Your task to perform on an android device: Do I have any events tomorrow? Image 0: 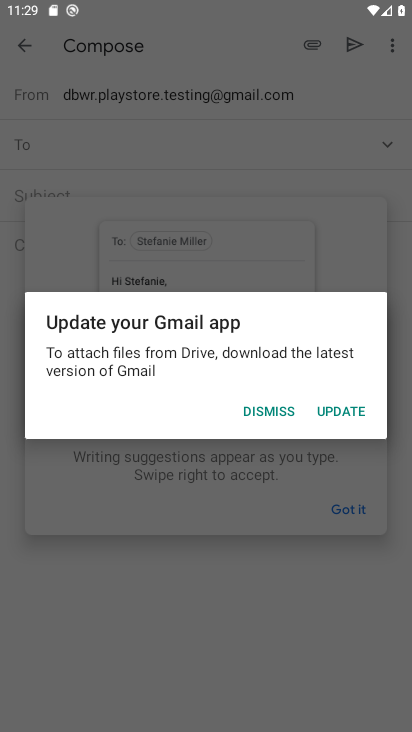
Step 0: press home button
Your task to perform on an android device: Do I have any events tomorrow? Image 1: 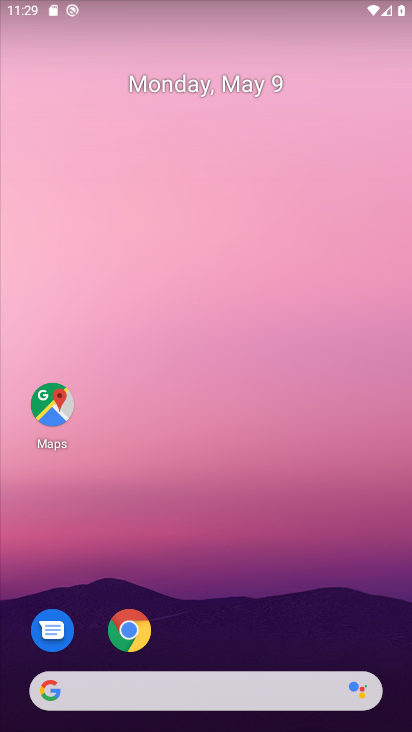
Step 1: drag from (253, 601) to (87, 137)
Your task to perform on an android device: Do I have any events tomorrow? Image 2: 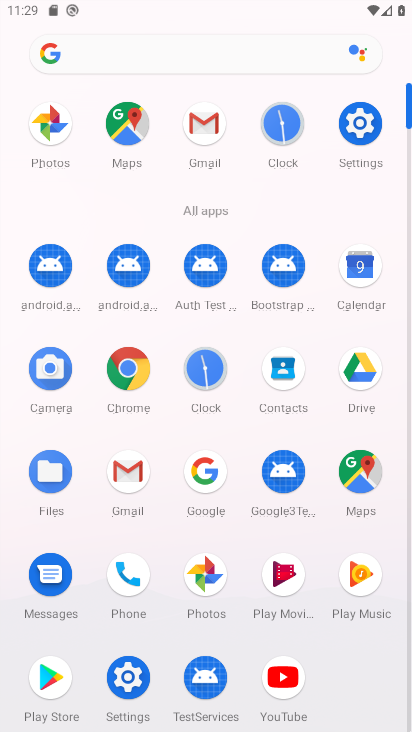
Step 2: click (358, 267)
Your task to perform on an android device: Do I have any events tomorrow? Image 3: 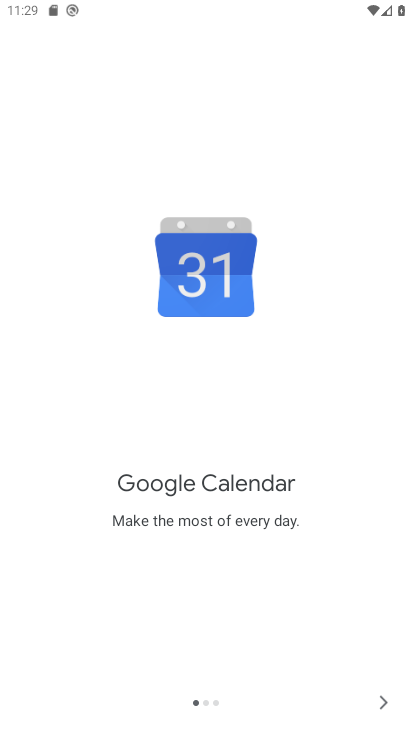
Step 3: click (386, 700)
Your task to perform on an android device: Do I have any events tomorrow? Image 4: 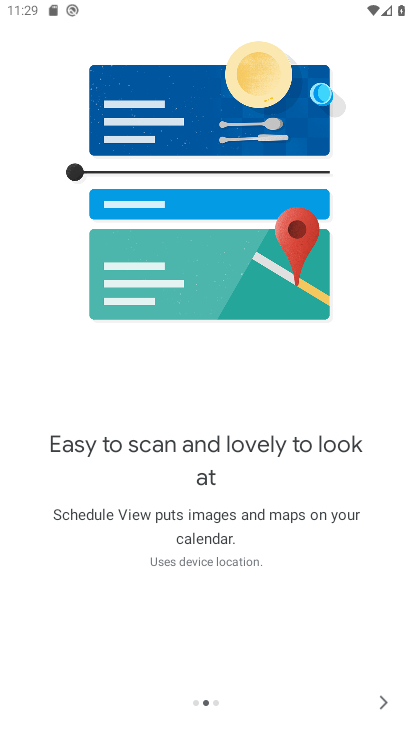
Step 4: click (385, 700)
Your task to perform on an android device: Do I have any events tomorrow? Image 5: 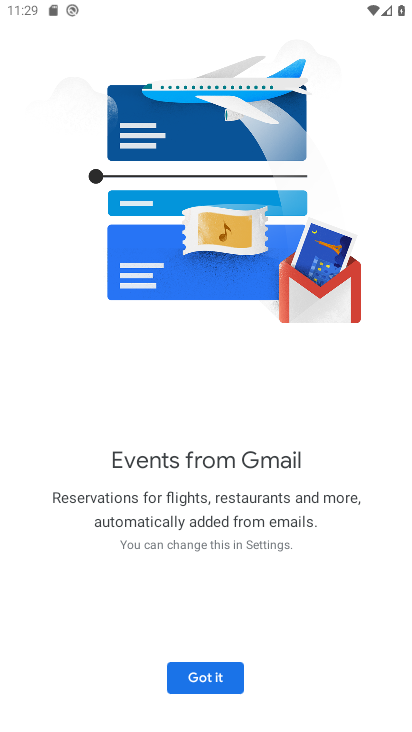
Step 5: click (230, 686)
Your task to perform on an android device: Do I have any events tomorrow? Image 6: 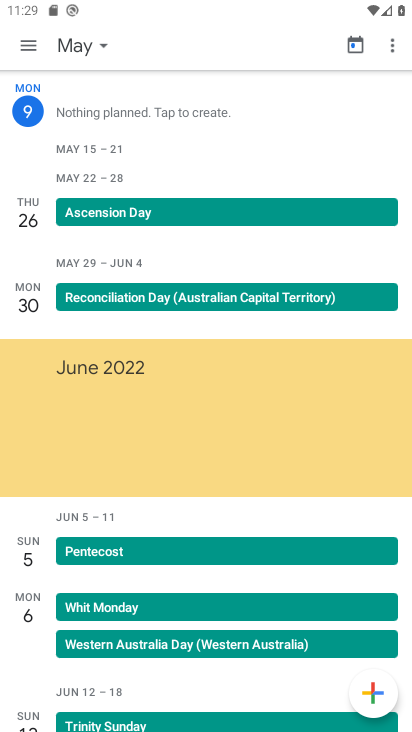
Step 6: click (28, 43)
Your task to perform on an android device: Do I have any events tomorrow? Image 7: 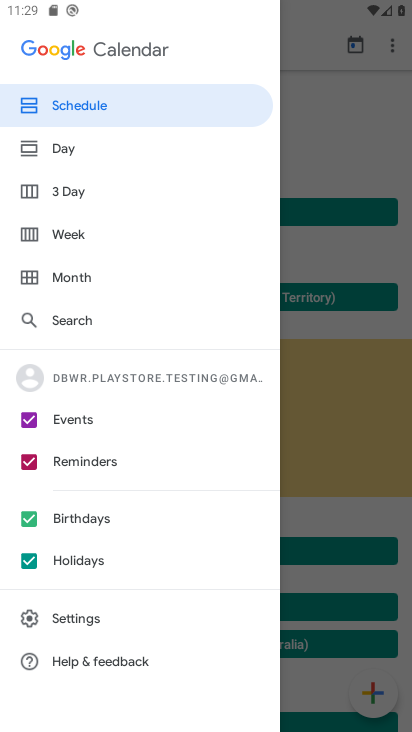
Step 7: click (28, 43)
Your task to perform on an android device: Do I have any events tomorrow? Image 8: 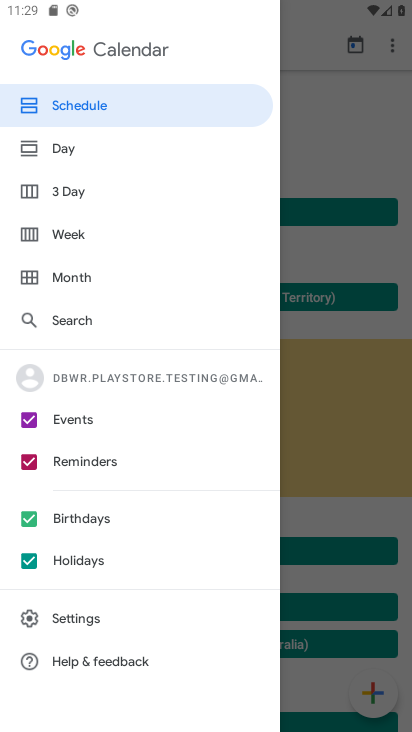
Step 8: click (122, 102)
Your task to perform on an android device: Do I have any events tomorrow? Image 9: 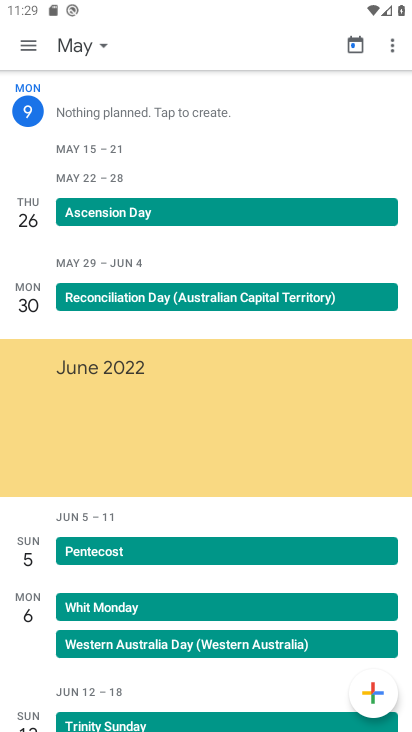
Step 9: task complete